Your task to perform on an android device: toggle location history Image 0: 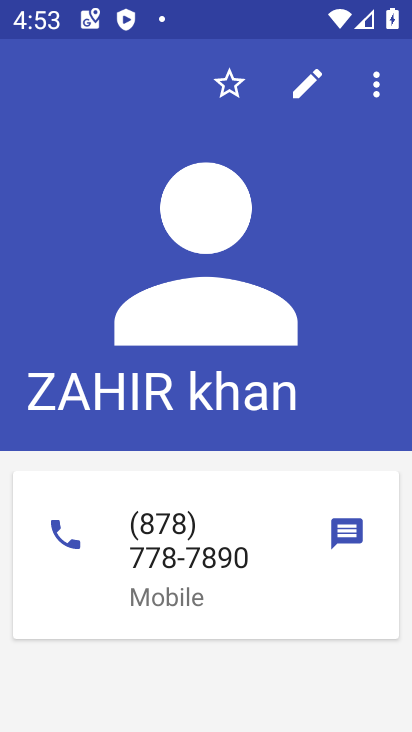
Step 0: press home button
Your task to perform on an android device: toggle location history Image 1: 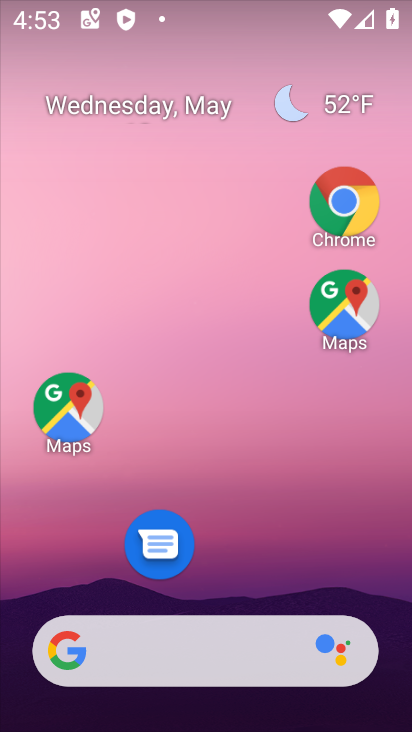
Step 1: drag from (298, 573) to (288, 152)
Your task to perform on an android device: toggle location history Image 2: 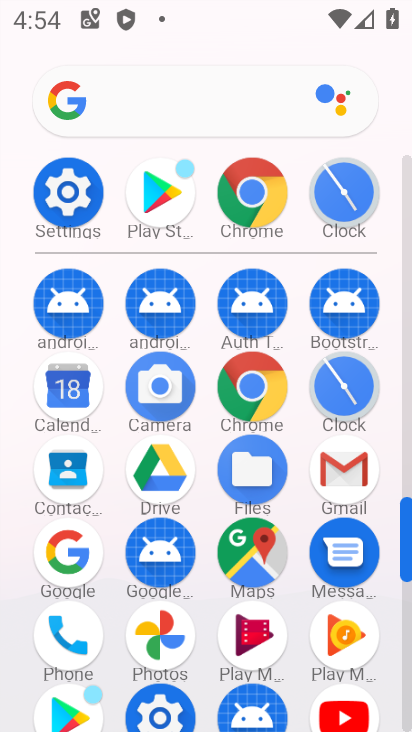
Step 2: click (60, 206)
Your task to perform on an android device: toggle location history Image 3: 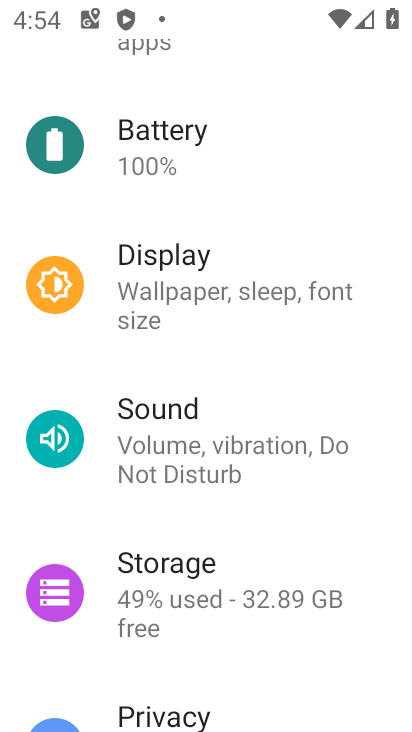
Step 3: drag from (230, 591) to (249, 290)
Your task to perform on an android device: toggle location history Image 4: 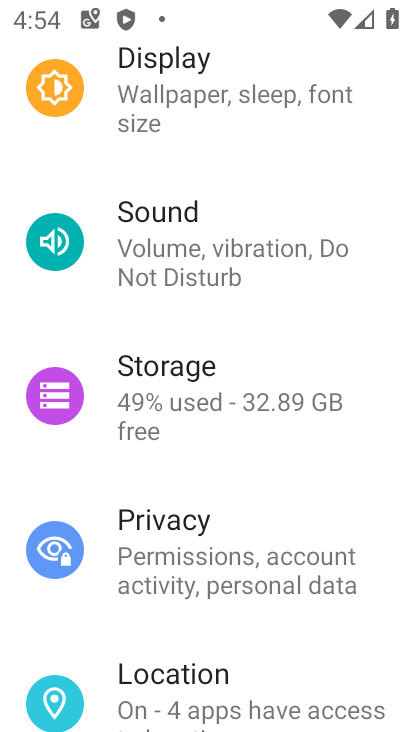
Step 4: click (174, 692)
Your task to perform on an android device: toggle location history Image 5: 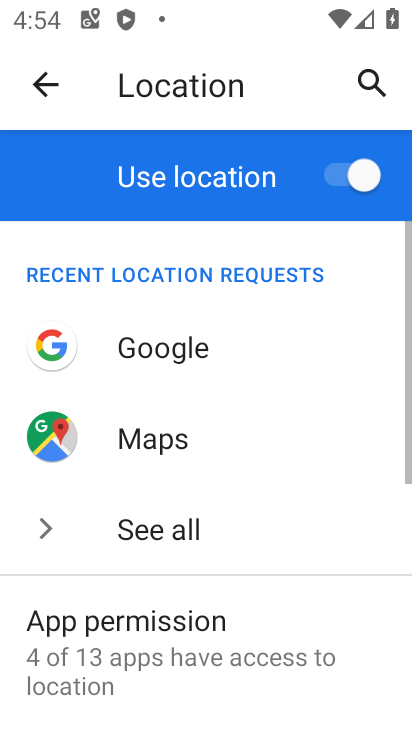
Step 5: drag from (220, 479) to (242, 273)
Your task to perform on an android device: toggle location history Image 6: 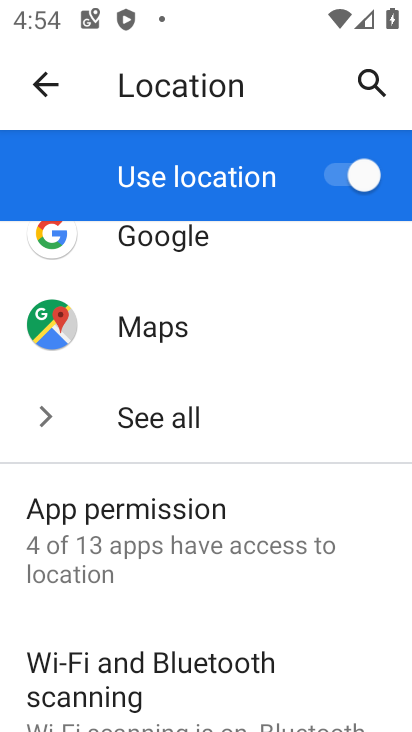
Step 6: drag from (175, 651) to (255, 353)
Your task to perform on an android device: toggle location history Image 7: 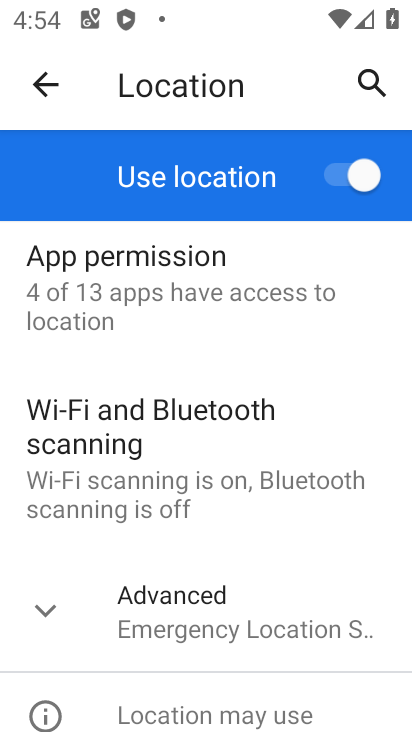
Step 7: drag from (206, 577) to (232, 390)
Your task to perform on an android device: toggle location history Image 8: 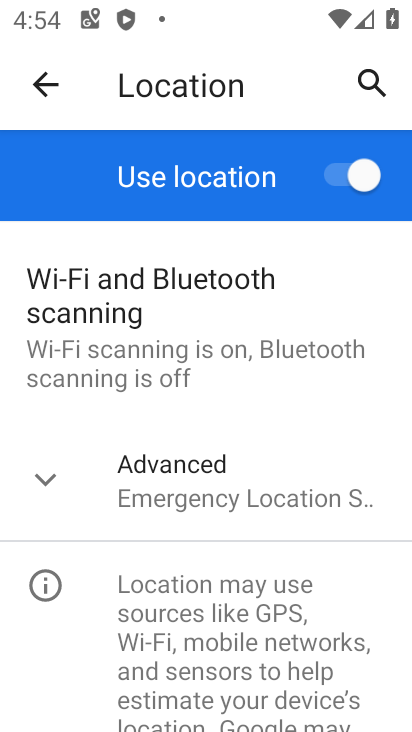
Step 8: click (144, 483)
Your task to perform on an android device: toggle location history Image 9: 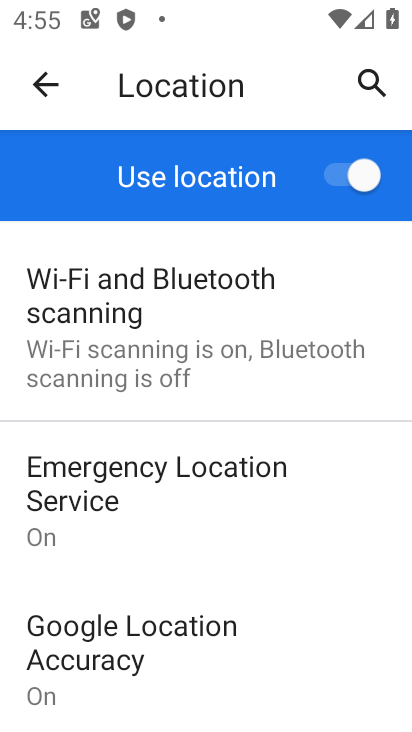
Step 9: drag from (196, 648) to (279, 367)
Your task to perform on an android device: toggle location history Image 10: 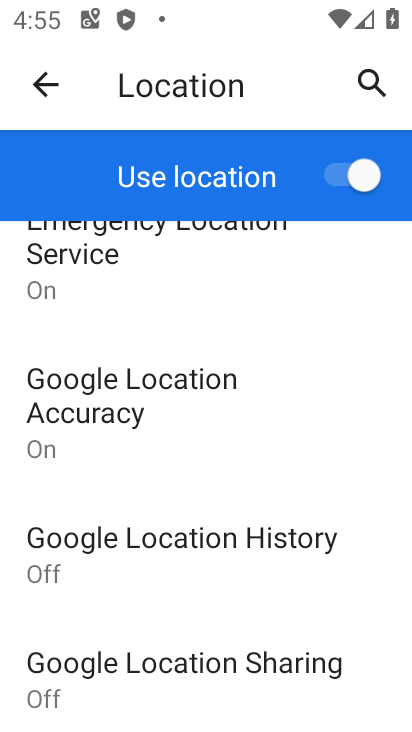
Step 10: click (223, 552)
Your task to perform on an android device: toggle location history Image 11: 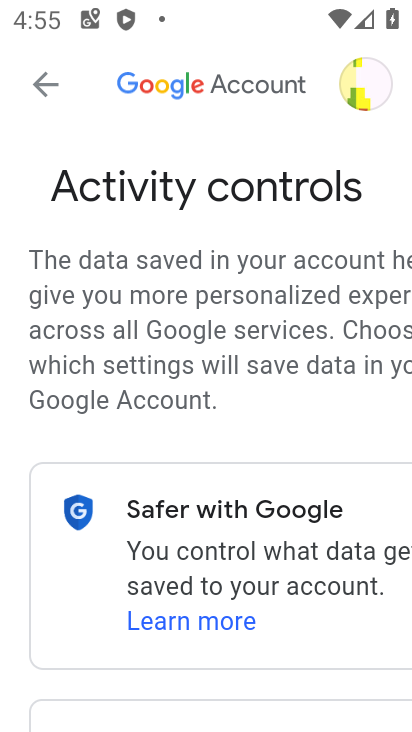
Step 11: drag from (277, 521) to (312, 202)
Your task to perform on an android device: toggle location history Image 12: 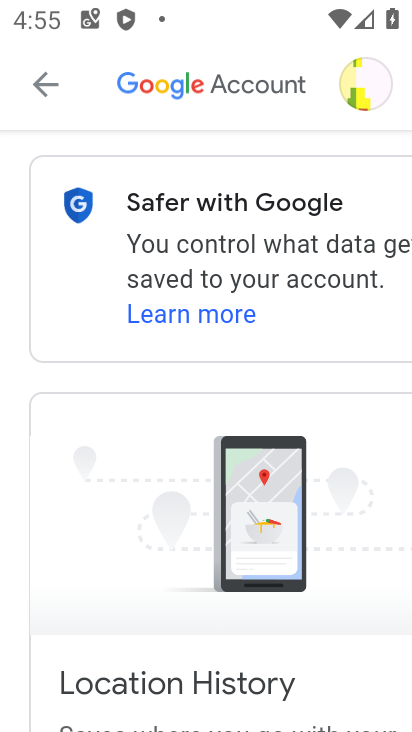
Step 12: drag from (185, 606) to (213, 350)
Your task to perform on an android device: toggle location history Image 13: 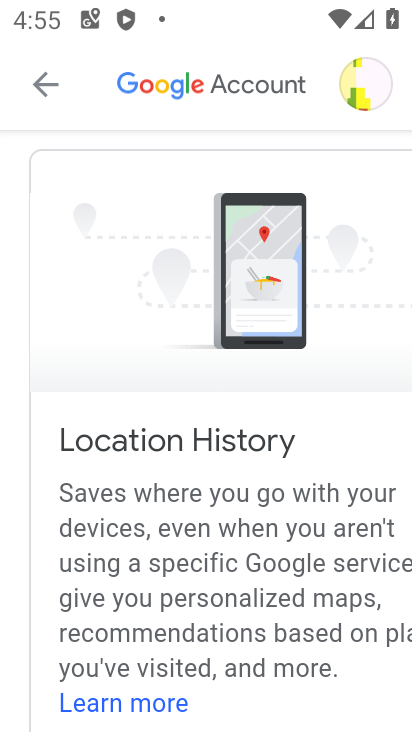
Step 13: drag from (216, 638) to (284, 354)
Your task to perform on an android device: toggle location history Image 14: 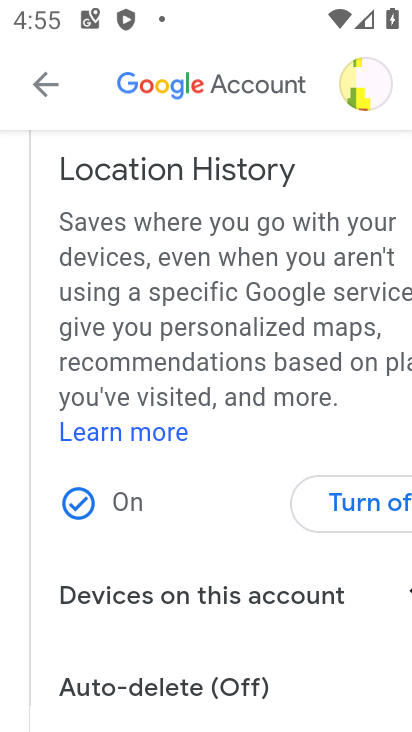
Step 14: click (343, 512)
Your task to perform on an android device: toggle location history Image 15: 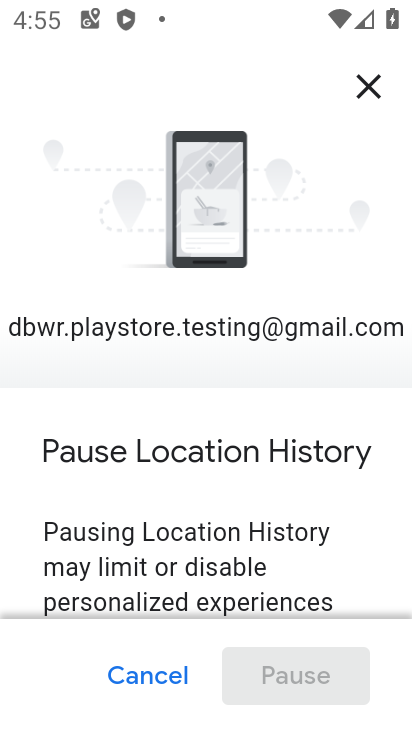
Step 15: drag from (244, 409) to (294, 243)
Your task to perform on an android device: toggle location history Image 16: 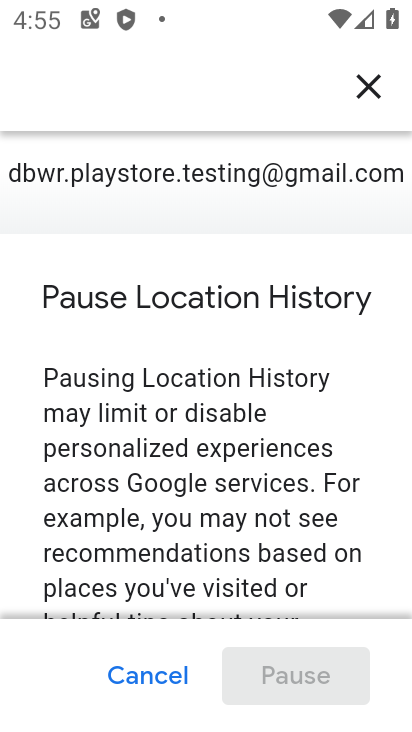
Step 16: drag from (265, 552) to (290, 264)
Your task to perform on an android device: toggle location history Image 17: 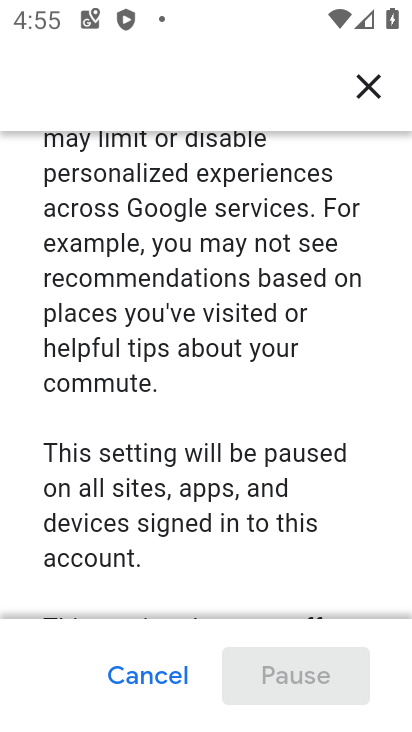
Step 17: drag from (214, 428) to (275, 179)
Your task to perform on an android device: toggle location history Image 18: 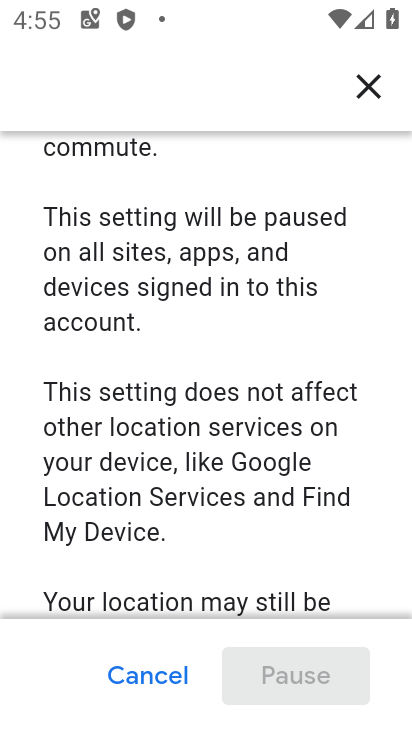
Step 18: drag from (240, 468) to (275, 164)
Your task to perform on an android device: toggle location history Image 19: 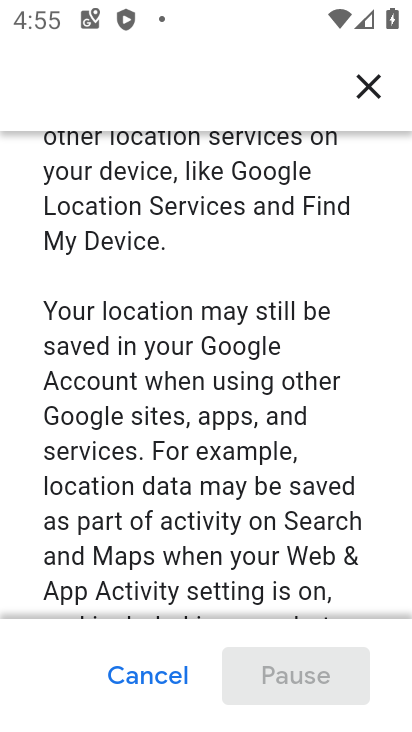
Step 19: drag from (230, 467) to (294, 120)
Your task to perform on an android device: toggle location history Image 20: 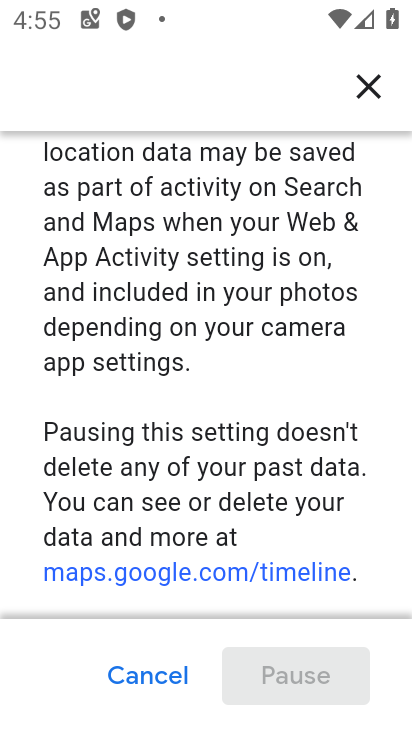
Step 20: drag from (257, 299) to (303, 136)
Your task to perform on an android device: toggle location history Image 21: 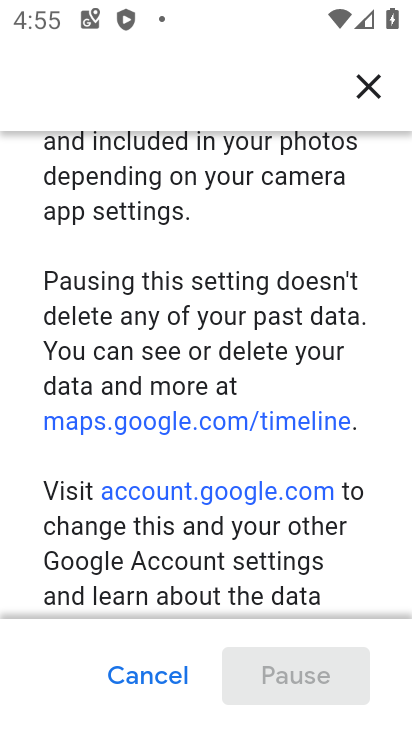
Step 21: drag from (225, 531) to (281, 221)
Your task to perform on an android device: toggle location history Image 22: 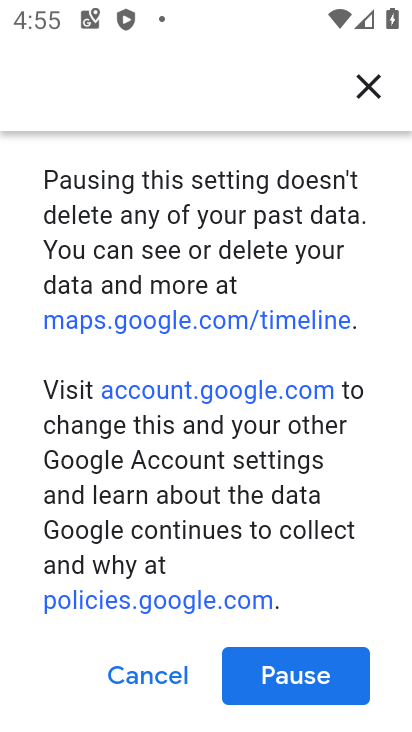
Step 22: click (264, 688)
Your task to perform on an android device: toggle location history Image 23: 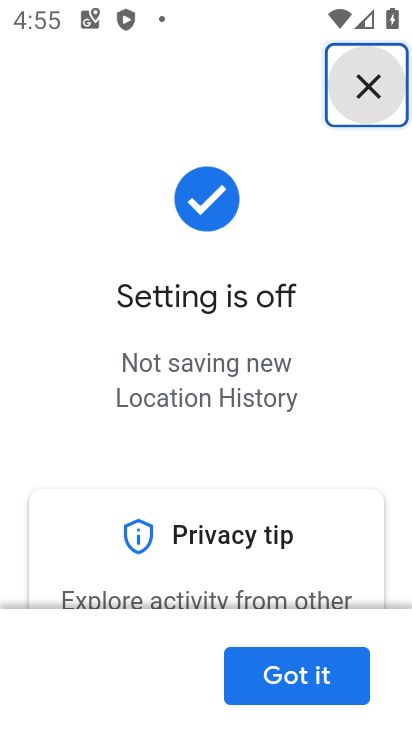
Step 23: click (280, 673)
Your task to perform on an android device: toggle location history Image 24: 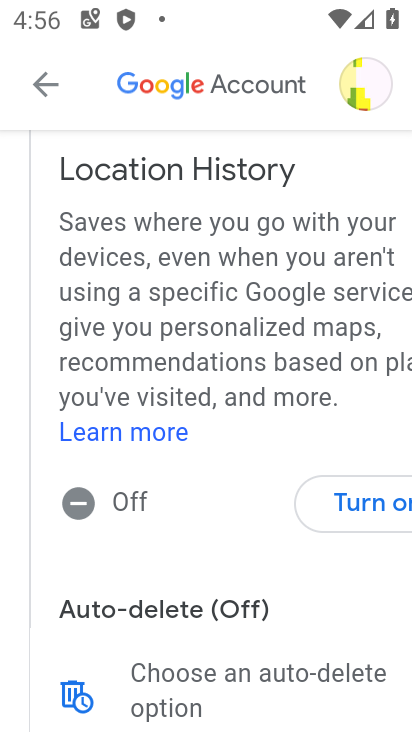
Step 24: task complete